Your task to perform on an android device: Go to CNN.com Image 0: 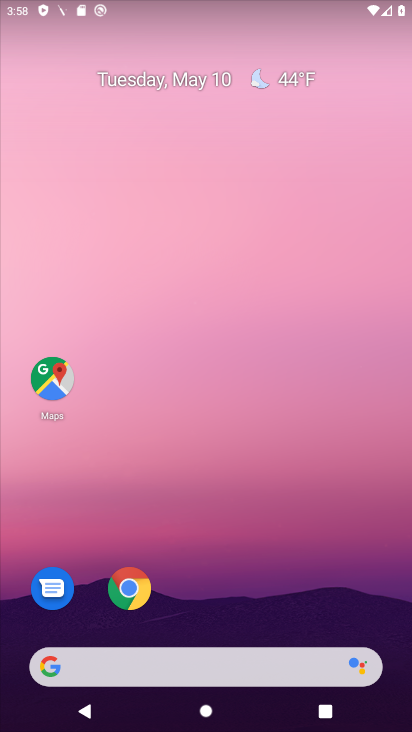
Step 0: click (225, 673)
Your task to perform on an android device: Go to CNN.com Image 1: 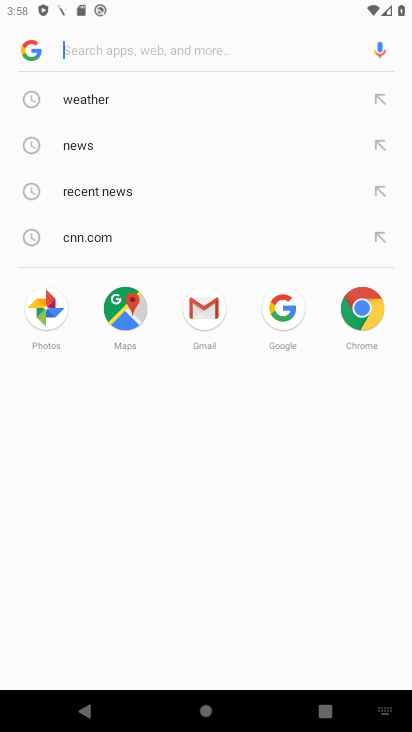
Step 1: type "CNN.com"
Your task to perform on an android device: Go to CNN.com Image 2: 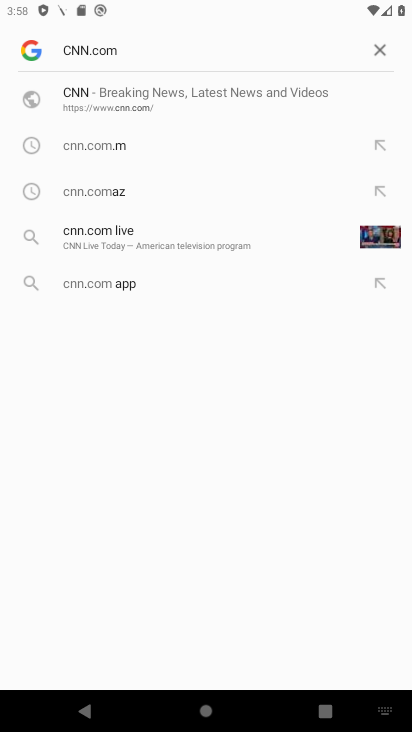
Step 2: click (134, 110)
Your task to perform on an android device: Go to CNN.com Image 3: 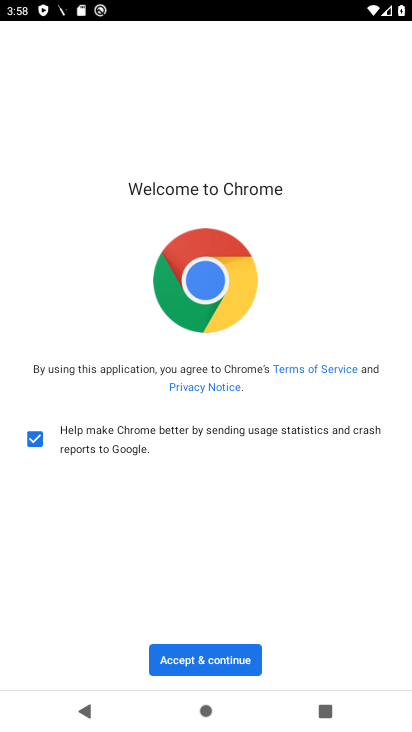
Step 3: click (226, 651)
Your task to perform on an android device: Go to CNN.com Image 4: 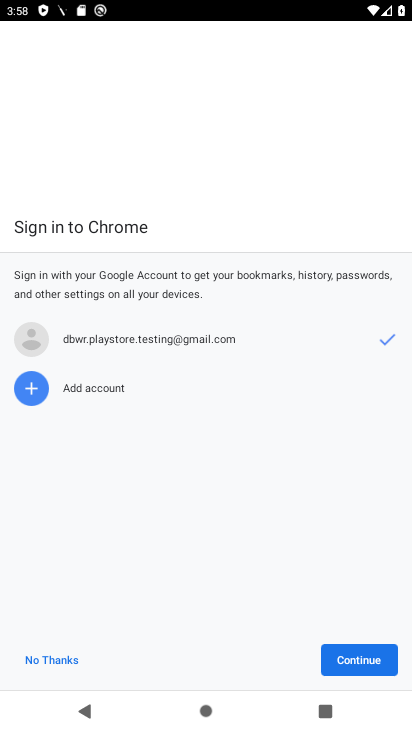
Step 4: click (378, 650)
Your task to perform on an android device: Go to CNN.com Image 5: 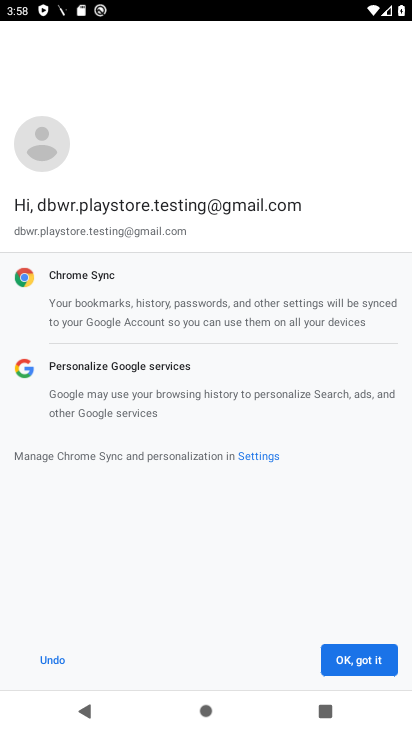
Step 5: click (380, 661)
Your task to perform on an android device: Go to CNN.com Image 6: 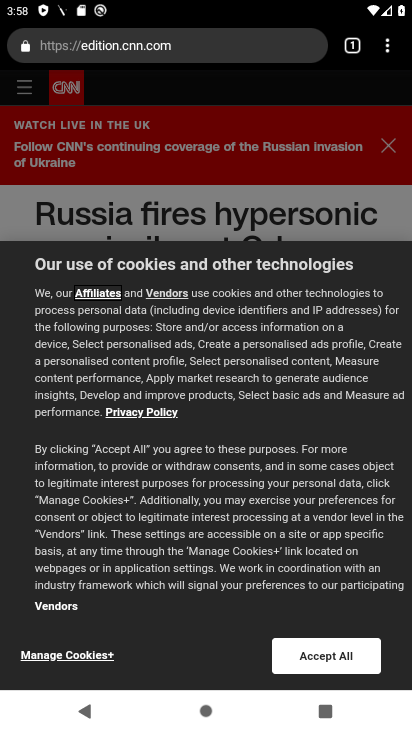
Step 6: click (308, 650)
Your task to perform on an android device: Go to CNN.com Image 7: 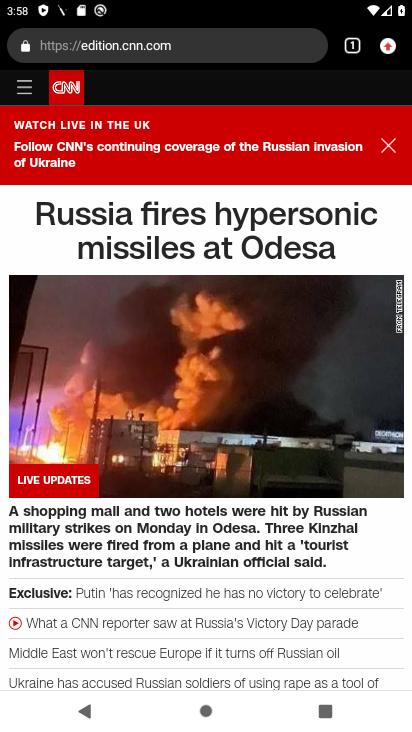
Step 7: task complete